Your task to perform on an android device: Go to Wikipedia Image 0: 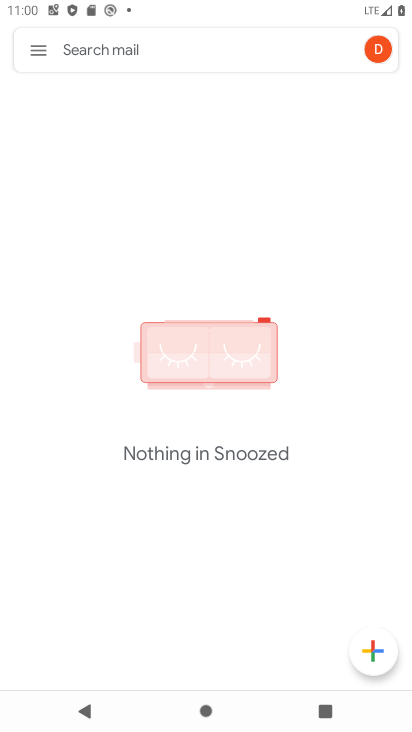
Step 0: press home button
Your task to perform on an android device: Go to Wikipedia Image 1: 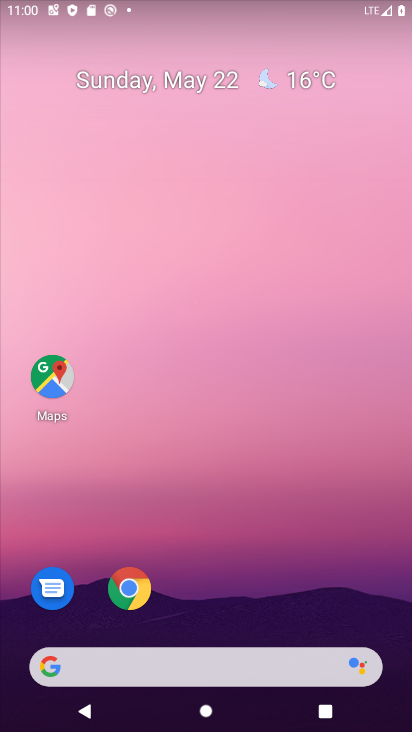
Step 1: click (148, 584)
Your task to perform on an android device: Go to Wikipedia Image 2: 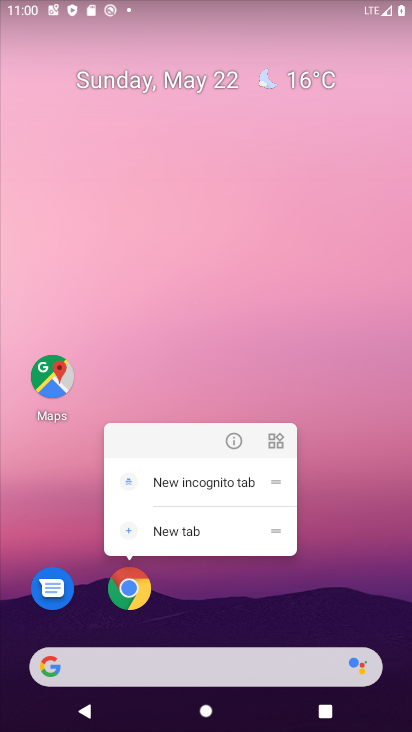
Step 2: click (129, 589)
Your task to perform on an android device: Go to Wikipedia Image 3: 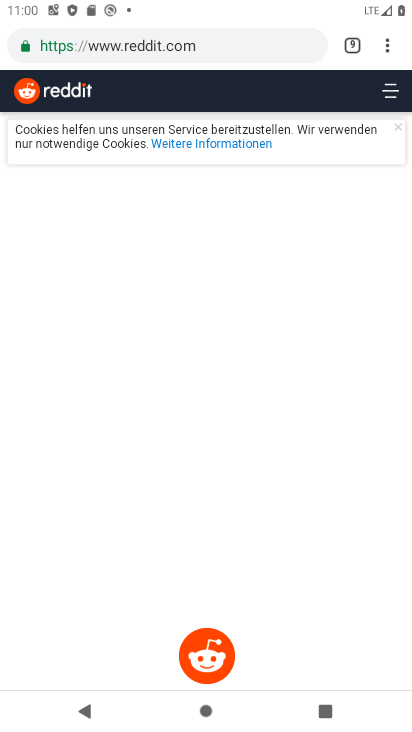
Step 3: click (355, 43)
Your task to perform on an android device: Go to Wikipedia Image 4: 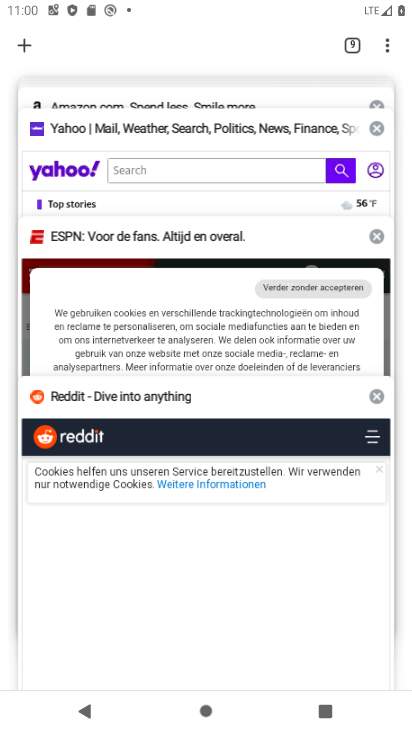
Step 4: click (20, 45)
Your task to perform on an android device: Go to Wikipedia Image 5: 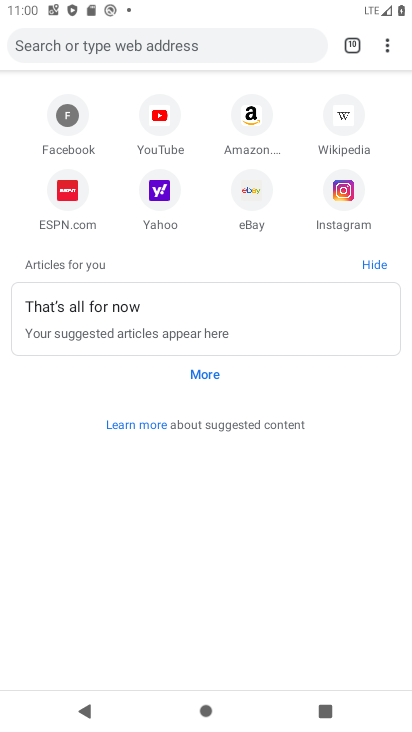
Step 5: click (339, 115)
Your task to perform on an android device: Go to Wikipedia Image 6: 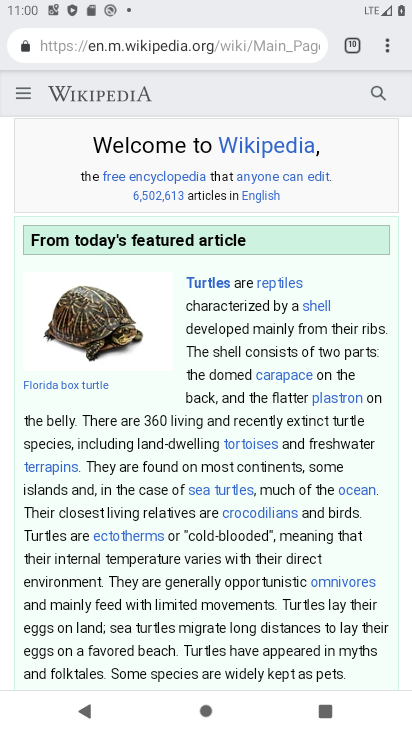
Step 6: task complete